Your task to perform on an android device: turn off translation in the chrome app Image 0: 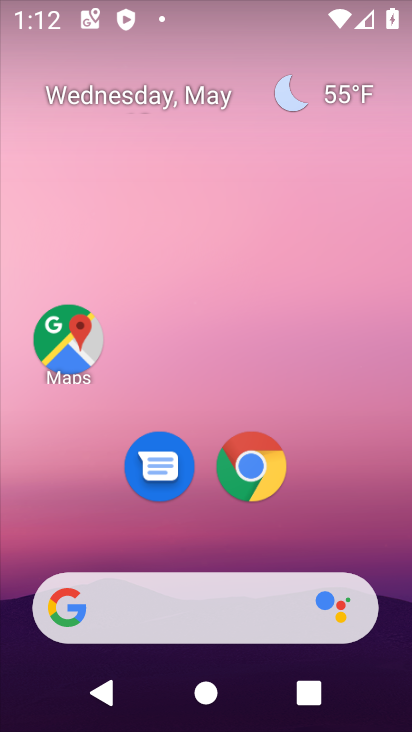
Step 0: click (249, 465)
Your task to perform on an android device: turn off translation in the chrome app Image 1: 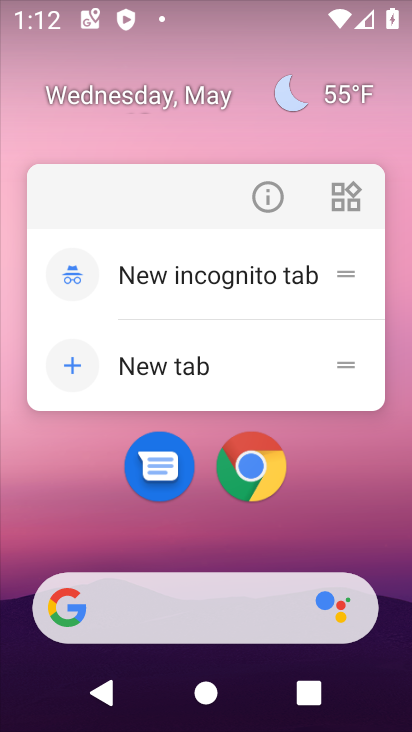
Step 1: click (249, 465)
Your task to perform on an android device: turn off translation in the chrome app Image 2: 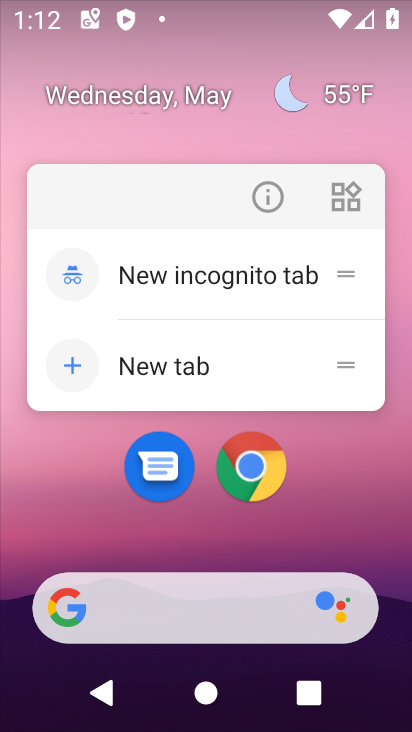
Step 2: click (249, 465)
Your task to perform on an android device: turn off translation in the chrome app Image 3: 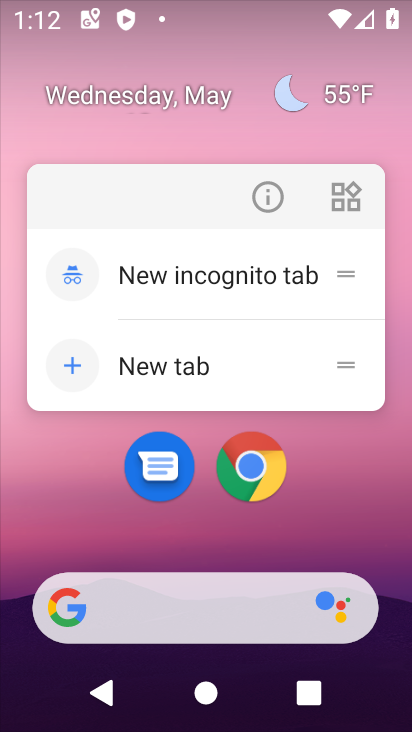
Step 3: click (249, 465)
Your task to perform on an android device: turn off translation in the chrome app Image 4: 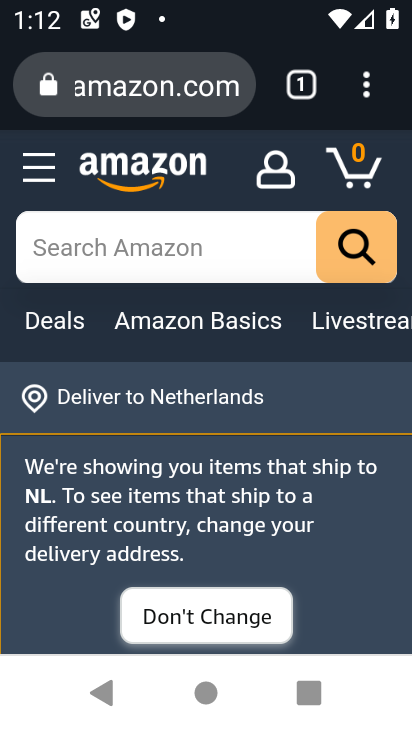
Step 4: click (369, 87)
Your task to perform on an android device: turn off translation in the chrome app Image 5: 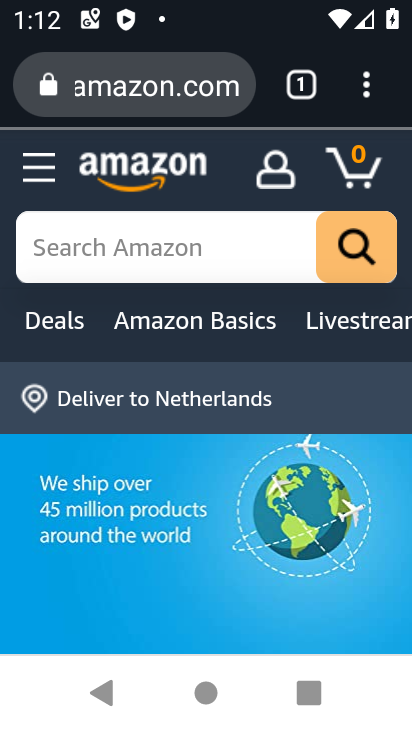
Step 5: click (406, 102)
Your task to perform on an android device: turn off translation in the chrome app Image 6: 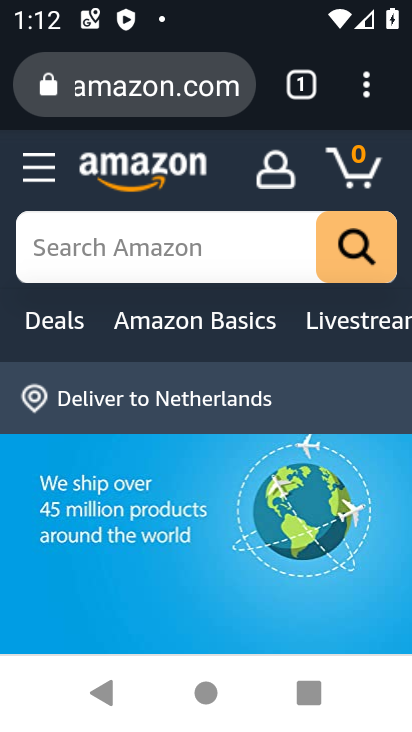
Step 6: click (403, 119)
Your task to perform on an android device: turn off translation in the chrome app Image 7: 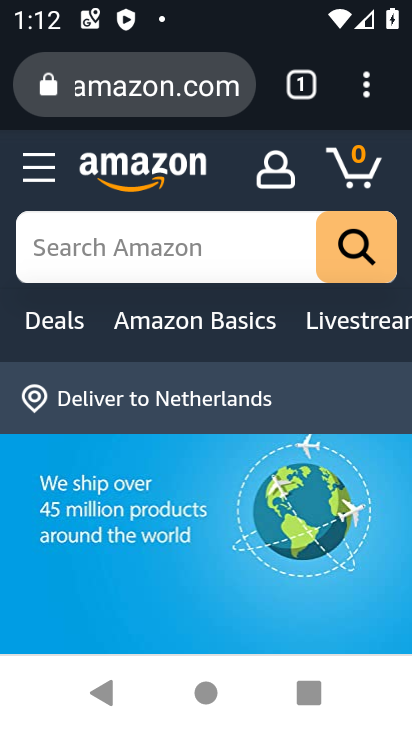
Step 7: click (388, 125)
Your task to perform on an android device: turn off translation in the chrome app Image 8: 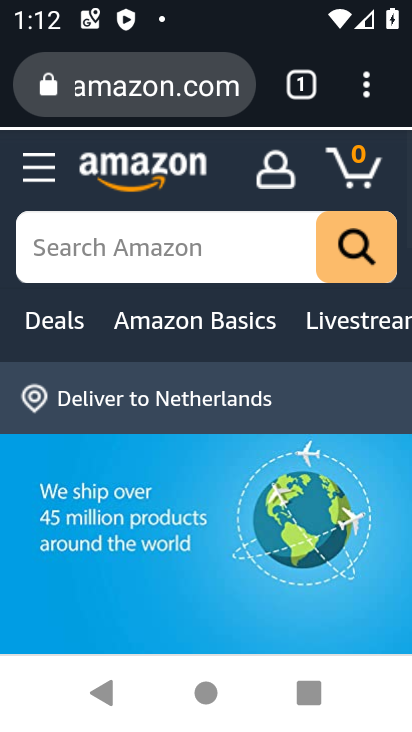
Step 8: click (382, 123)
Your task to perform on an android device: turn off translation in the chrome app Image 9: 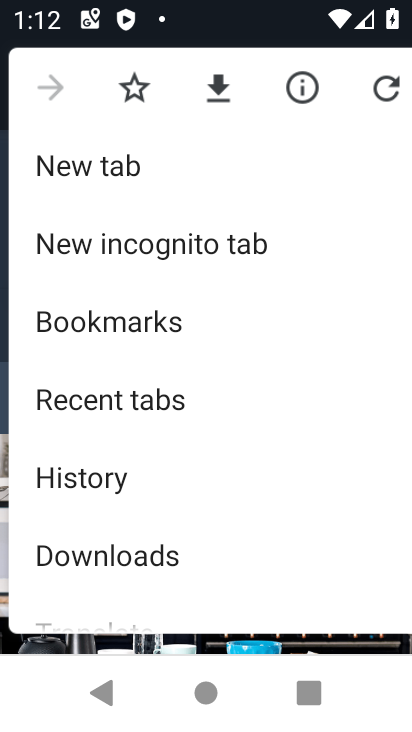
Step 9: drag from (165, 546) to (194, 245)
Your task to perform on an android device: turn off translation in the chrome app Image 10: 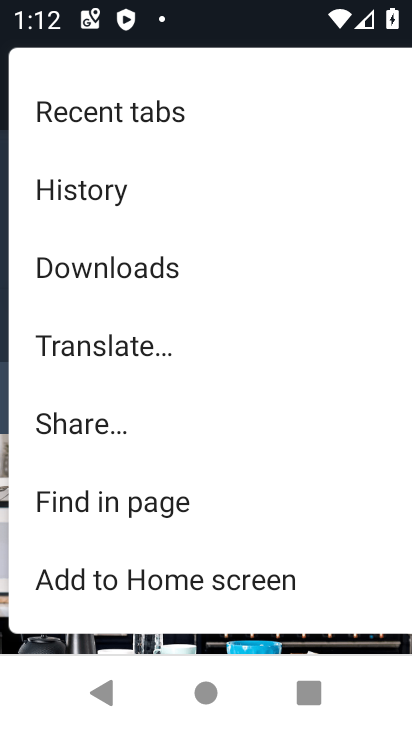
Step 10: drag from (126, 563) to (184, 351)
Your task to perform on an android device: turn off translation in the chrome app Image 11: 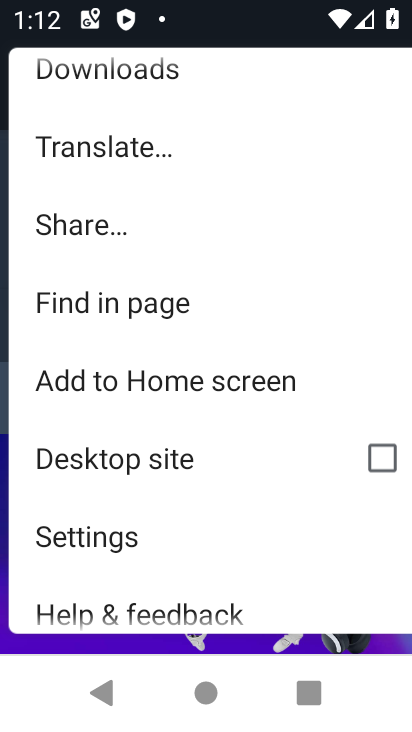
Step 11: click (85, 547)
Your task to perform on an android device: turn off translation in the chrome app Image 12: 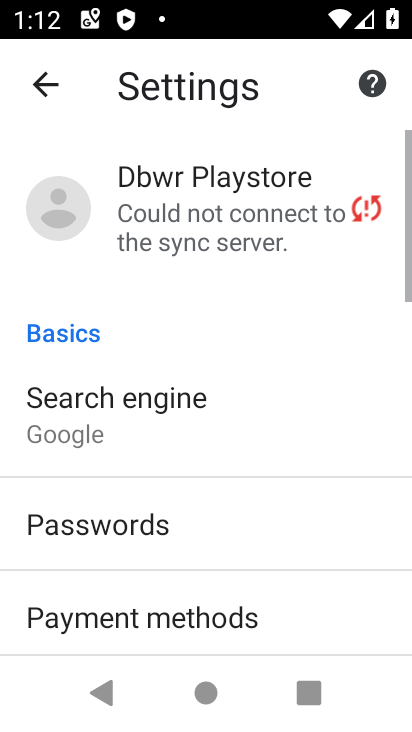
Step 12: drag from (110, 579) to (216, 273)
Your task to perform on an android device: turn off translation in the chrome app Image 13: 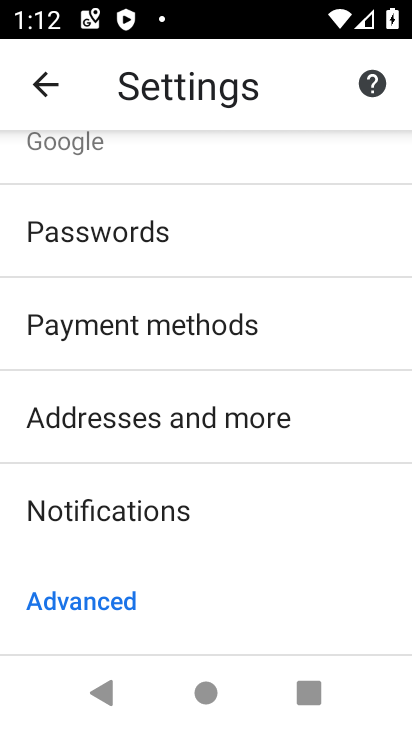
Step 13: drag from (139, 610) to (192, 237)
Your task to perform on an android device: turn off translation in the chrome app Image 14: 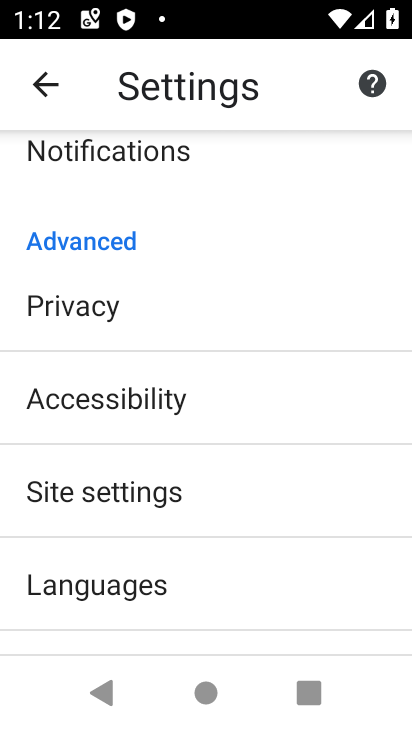
Step 14: drag from (118, 595) to (160, 460)
Your task to perform on an android device: turn off translation in the chrome app Image 15: 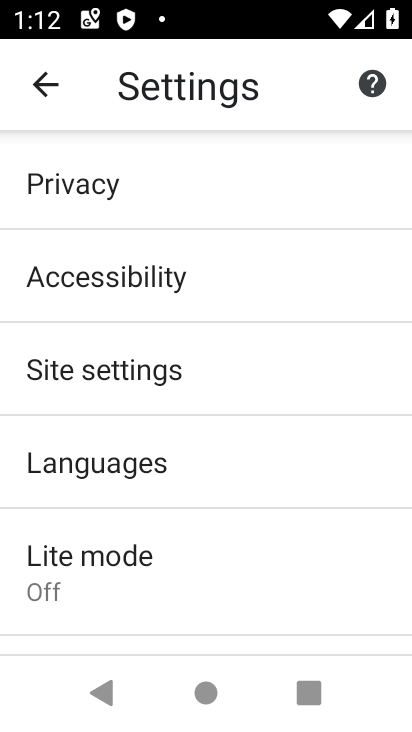
Step 15: click (130, 470)
Your task to perform on an android device: turn off translation in the chrome app Image 16: 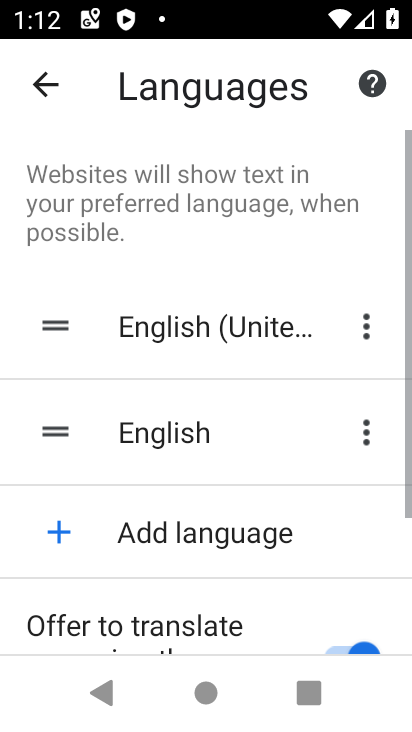
Step 16: drag from (264, 597) to (284, 354)
Your task to perform on an android device: turn off translation in the chrome app Image 17: 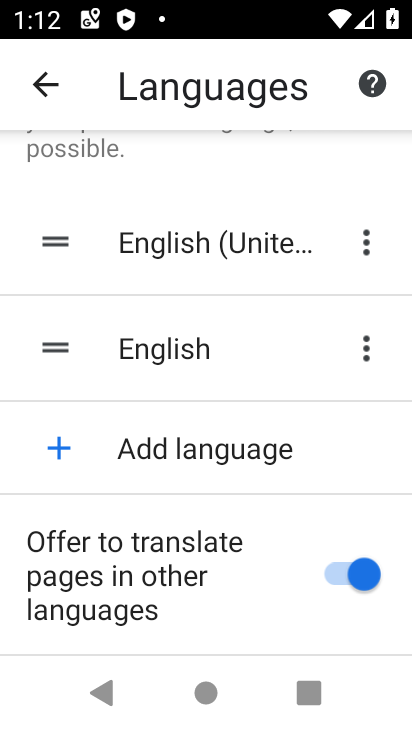
Step 17: click (331, 579)
Your task to perform on an android device: turn off translation in the chrome app Image 18: 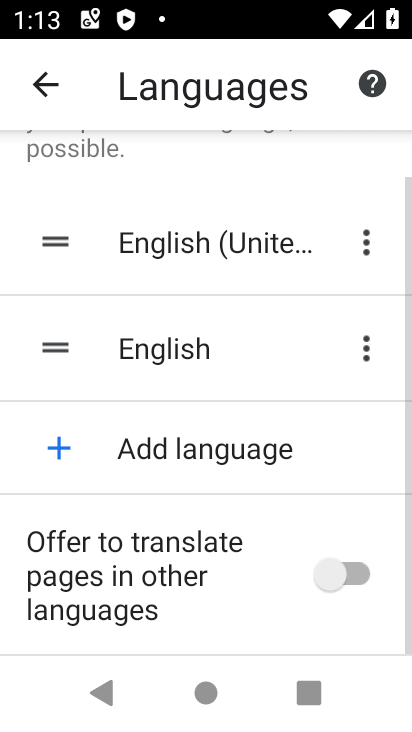
Step 18: task complete